Your task to perform on an android device: Clear the shopping cart on amazon. Add "asus zenbook" to the cart on amazon Image 0: 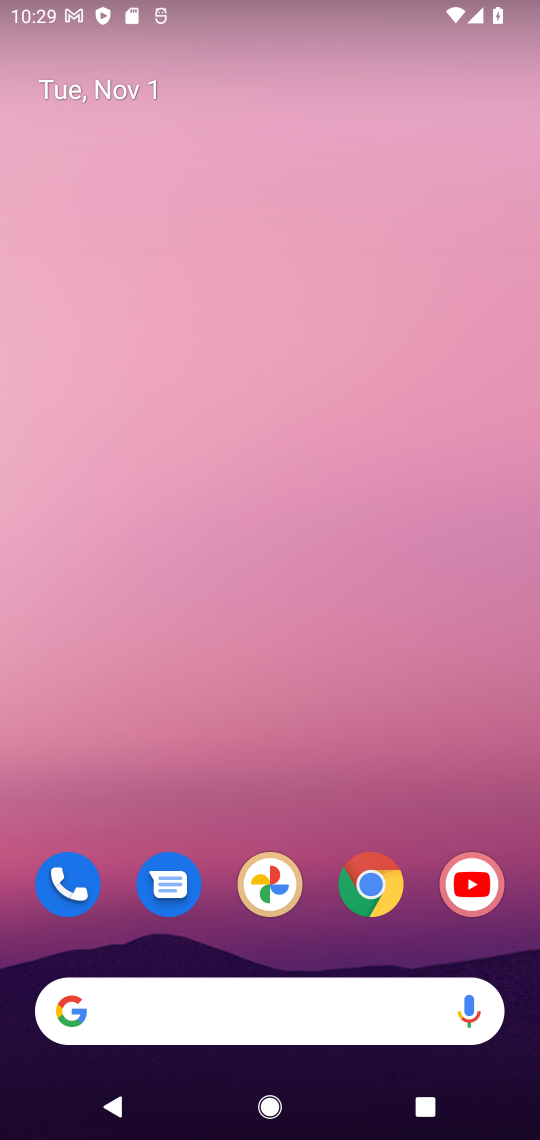
Step 0: click (379, 903)
Your task to perform on an android device: Clear the shopping cart on amazon. Add "asus zenbook" to the cart on amazon Image 1: 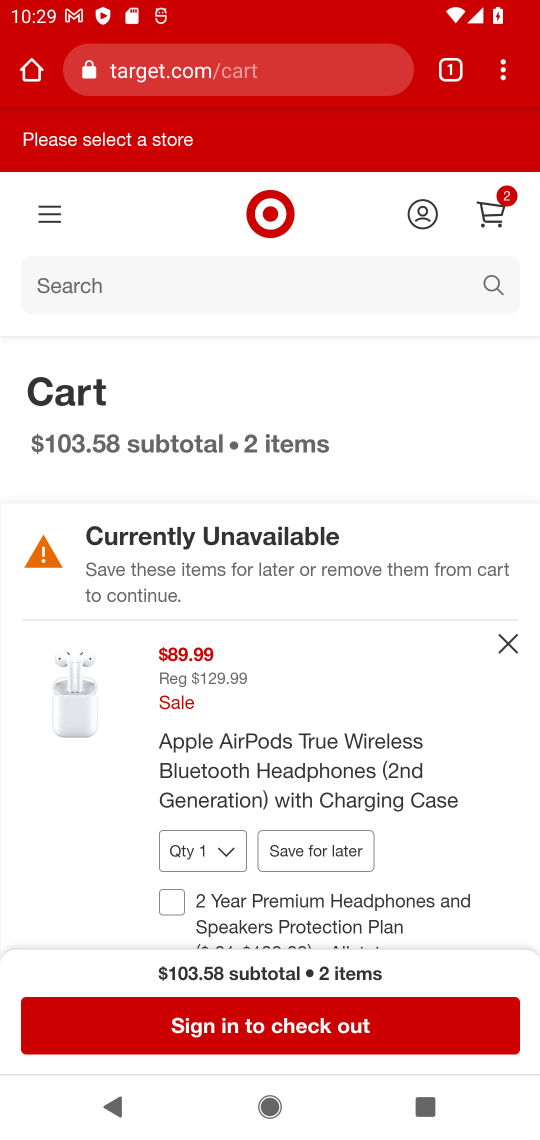
Step 1: click (295, 67)
Your task to perform on an android device: Clear the shopping cart on amazon. Add "asus zenbook" to the cart on amazon Image 2: 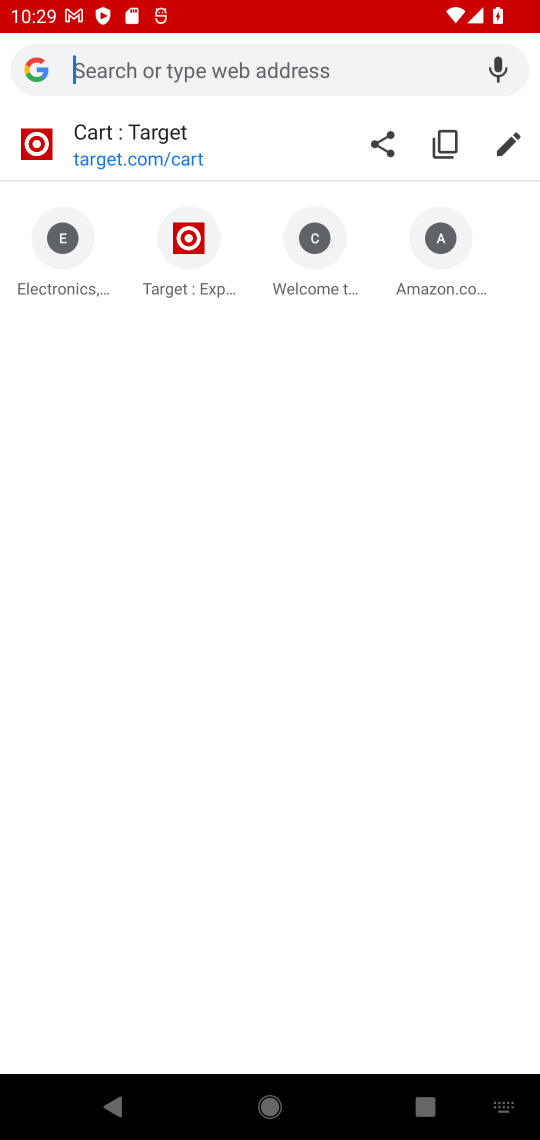
Step 2: type "amazon"
Your task to perform on an android device: Clear the shopping cart on amazon. Add "asus zenbook" to the cart on amazon Image 3: 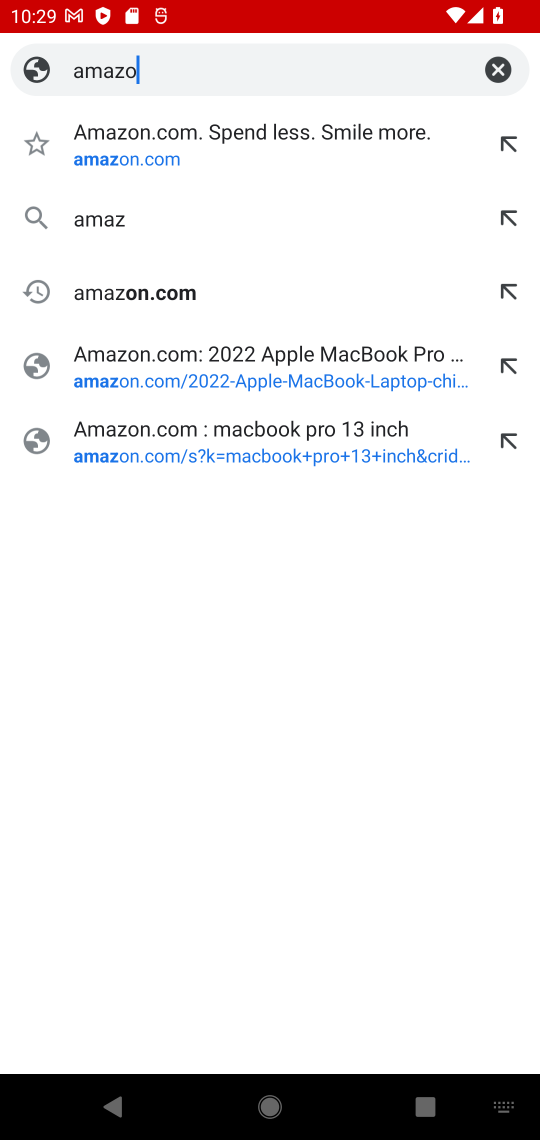
Step 3: type ""
Your task to perform on an android device: Clear the shopping cart on amazon. Add "asus zenbook" to the cart on amazon Image 4: 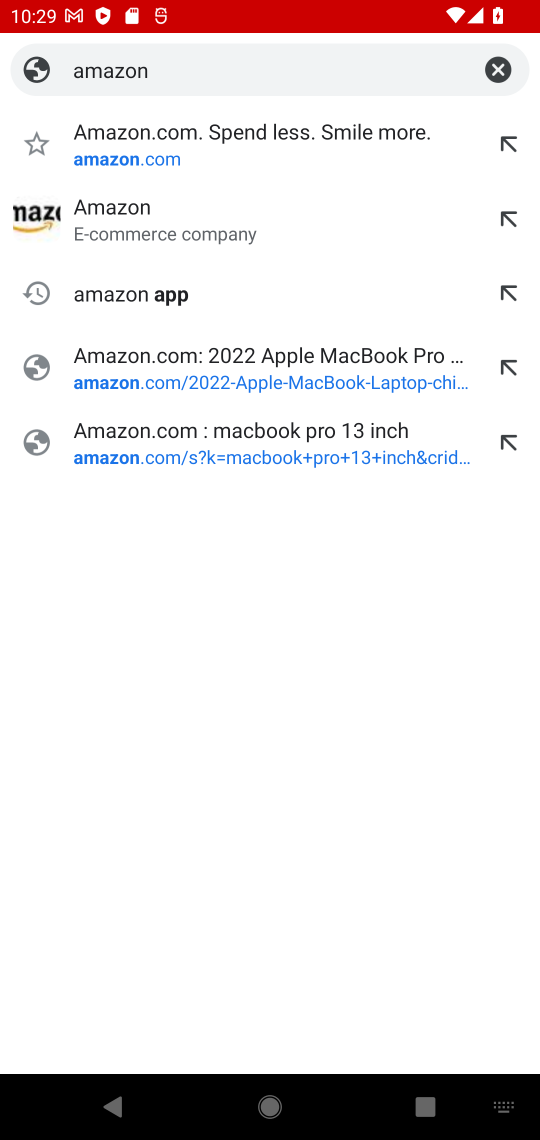
Step 4: press enter
Your task to perform on an android device: Clear the shopping cart on amazon. Add "asus zenbook" to the cart on amazon Image 5: 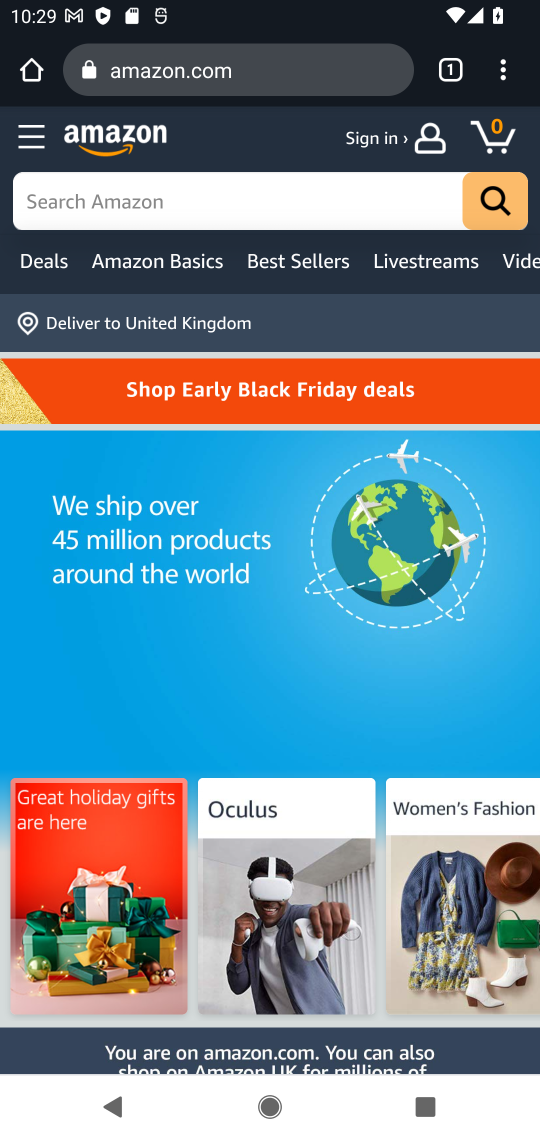
Step 5: click (475, 152)
Your task to perform on an android device: Clear the shopping cart on amazon. Add "asus zenbook" to the cart on amazon Image 6: 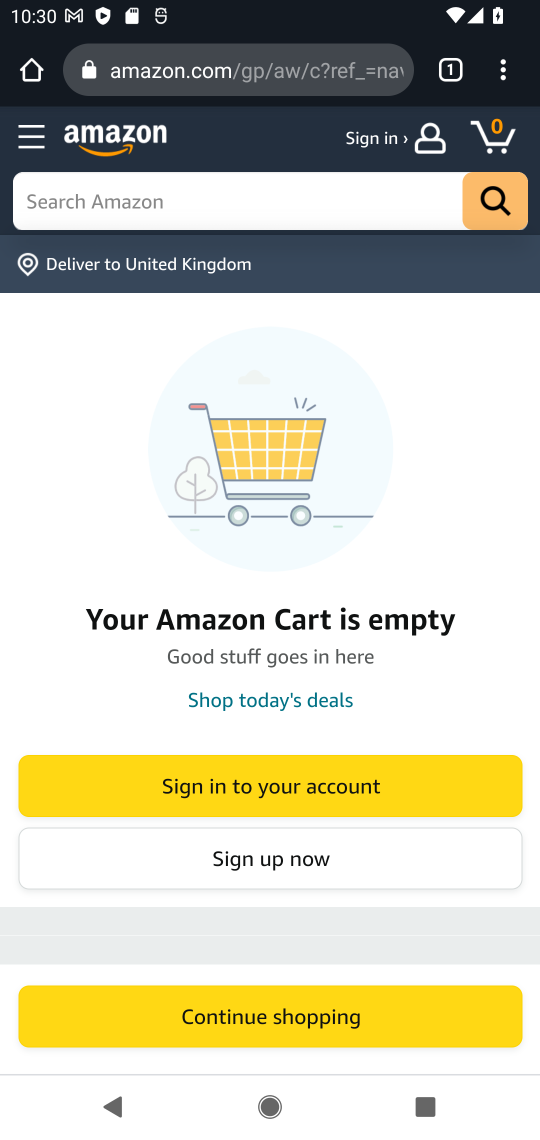
Step 6: click (294, 237)
Your task to perform on an android device: Clear the shopping cart on amazon. Add "asus zenbook" to the cart on amazon Image 7: 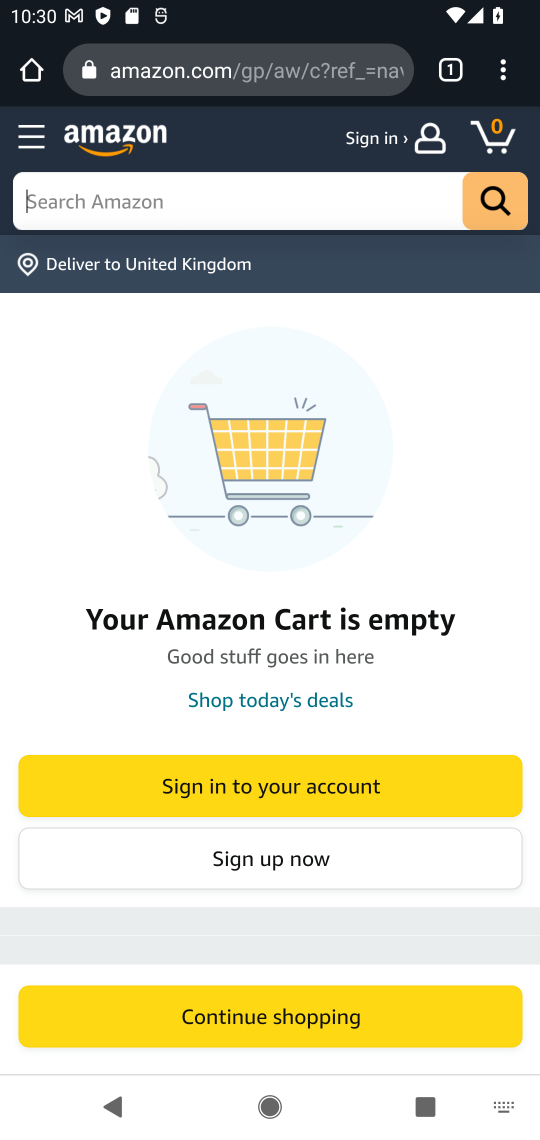
Step 7: click (192, 207)
Your task to perform on an android device: Clear the shopping cart on amazon. Add "asus zenbook" to the cart on amazon Image 8: 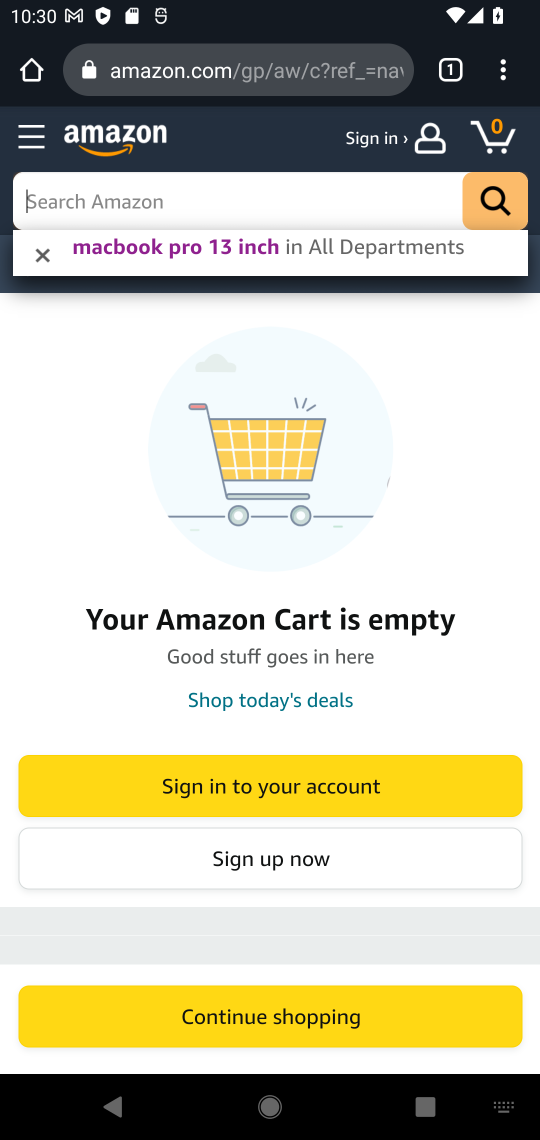
Step 8: type "asus zenbook"
Your task to perform on an android device: Clear the shopping cart on amazon. Add "asus zenbook" to the cart on amazon Image 9: 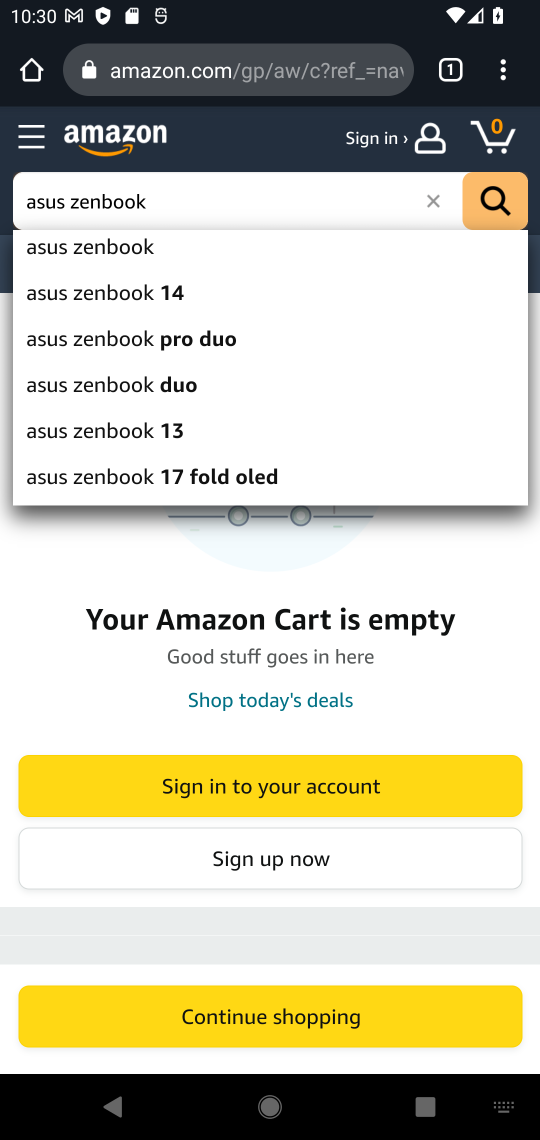
Step 9: press enter
Your task to perform on an android device: Clear the shopping cart on amazon. Add "asus zenbook" to the cart on amazon Image 10: 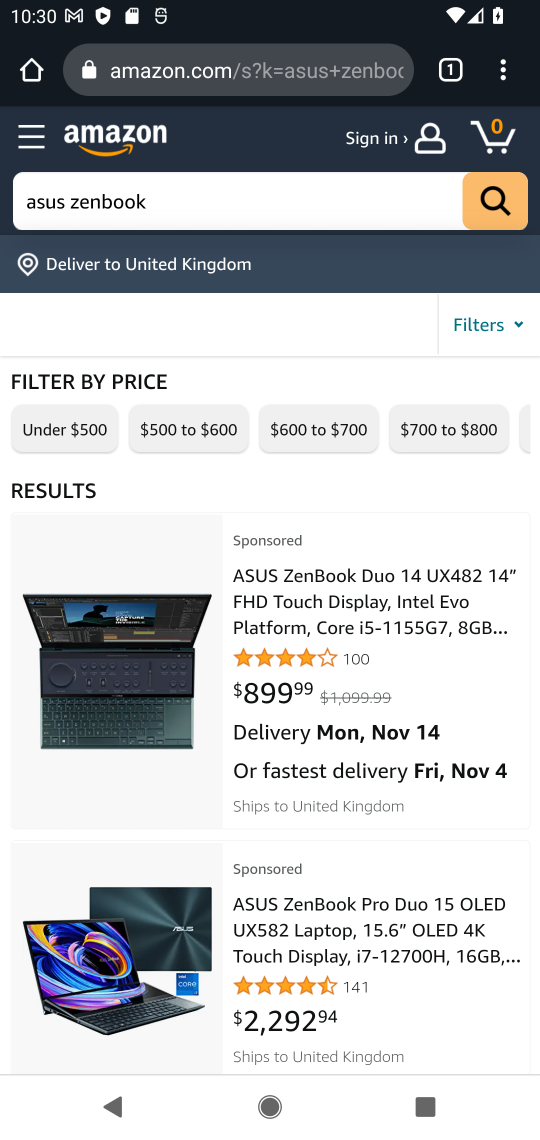
Step 10: click (371, 605)
Your task to perform on an android device: Clear the shopping cart on amazon. Add "asus zenbook" to the cart on amazon Image 11: 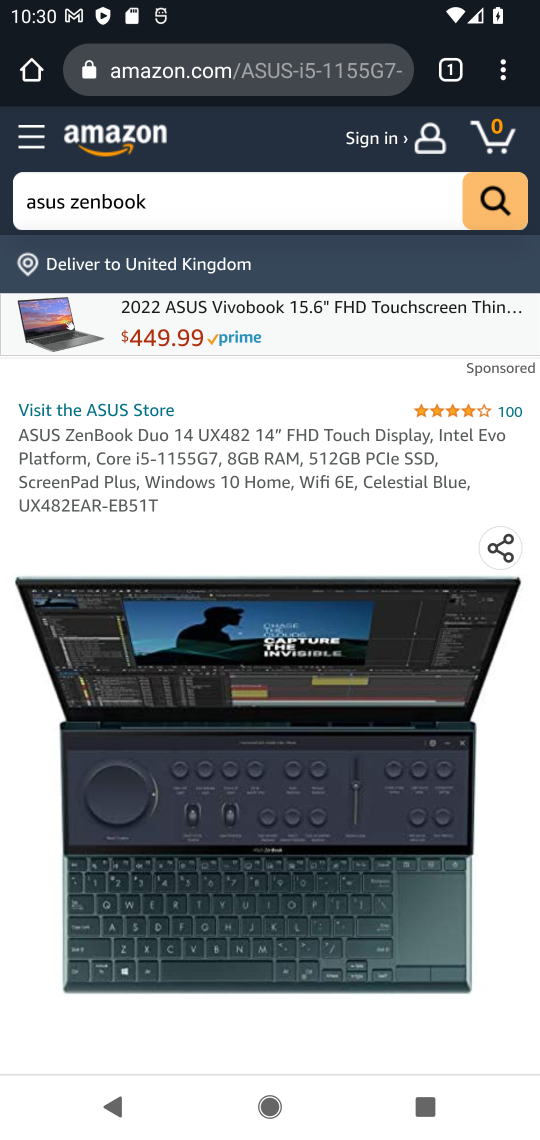
Step 11: drag from (404, 808) to (370, 362)
Your task to perform on an android device: Clear the shopping cart on amazon. Add "asus zenbook" to the cart on amazon Image 12: 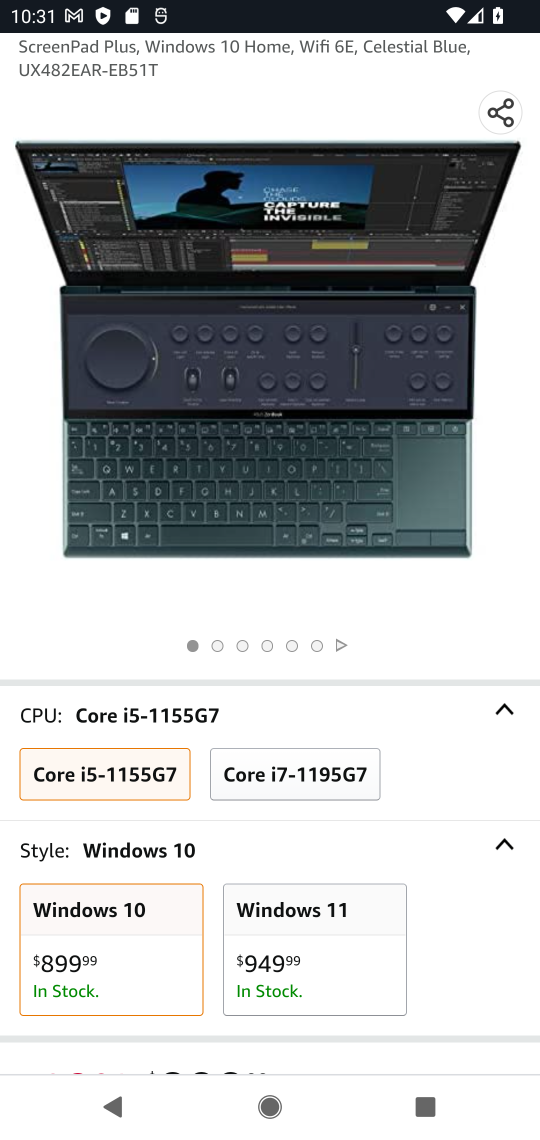
Step 12: drag from (406, 825) to (333, 326)
Your task to perform on an android device: Clear the shopping cart on amazon. Add "asus zenbook" to the cart on amazon Image 13: 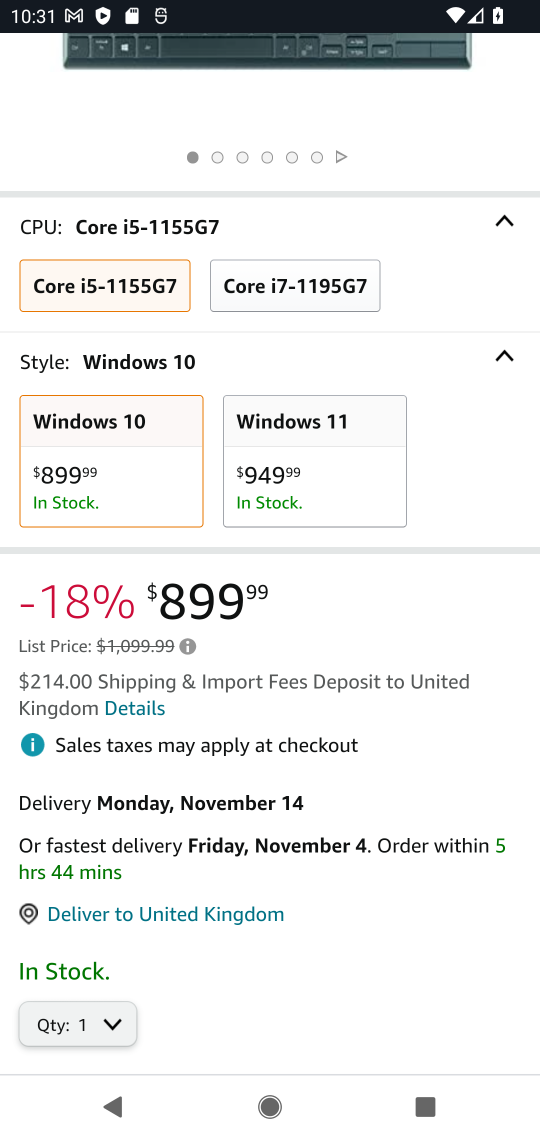
Step 13: drag from (397, 852) to (364, 571)
Your task to perform on an android device: Clear the shopping cart on amazon. Add "asus zenbook" to the cart on amazon Image 14: 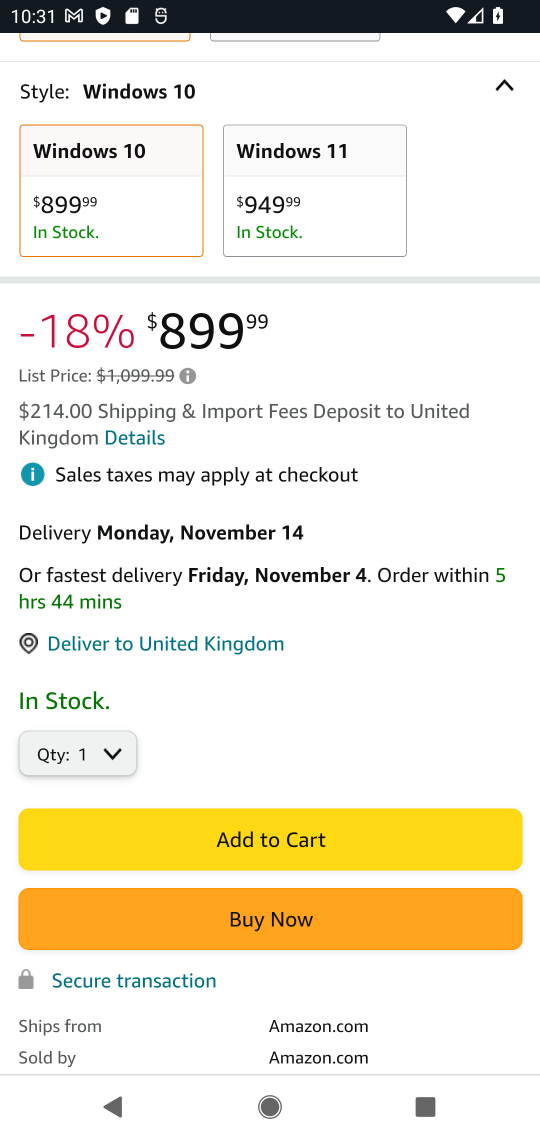
Step 14: click (382, 840)
Your task to perform on an android device: Clear the shopping cart on amazon. Add "asus zenbook" to the cart on amazon Image 15: 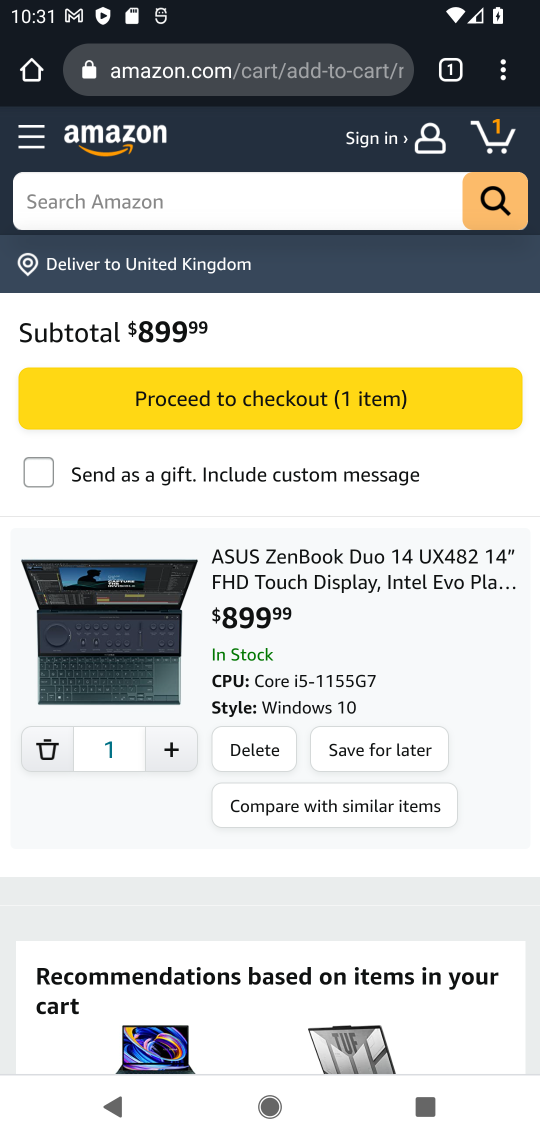
Step 15: task complete